Your task to perform on an android device: see sites visited before in the chrome app Image 0: 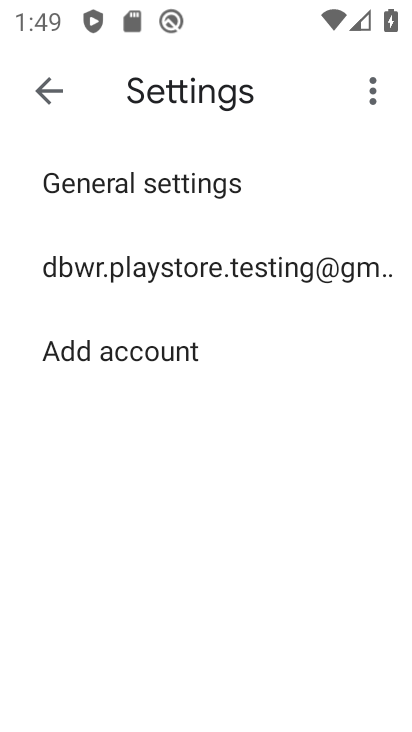
Step 0: press home button
Your task to perform on an android device: see sites visited before in the chrome app Image 1: 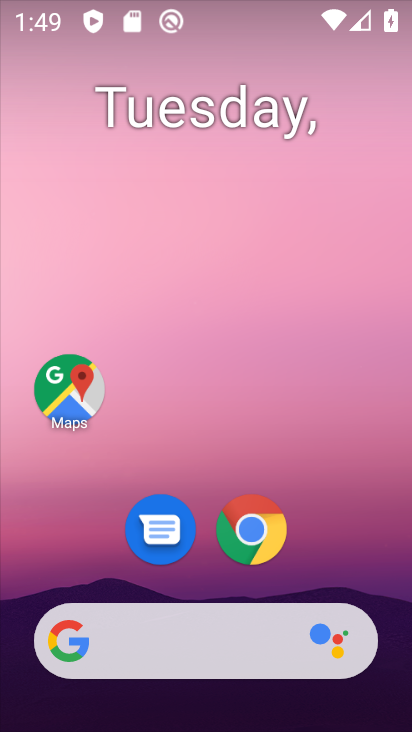
Step 1: click (267, 536)
Your task to perform on an android device: see sites visited before in the chrome app Image 2: 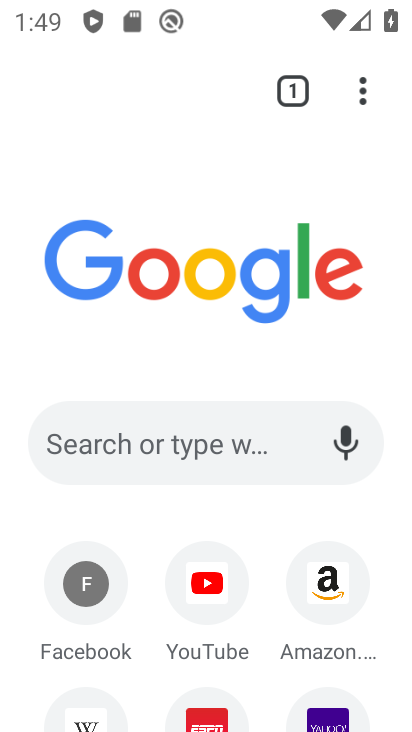
Step 2: click (372, 97)
Your task to perform on an android device: see sites visited before in the chrome app Image 3: 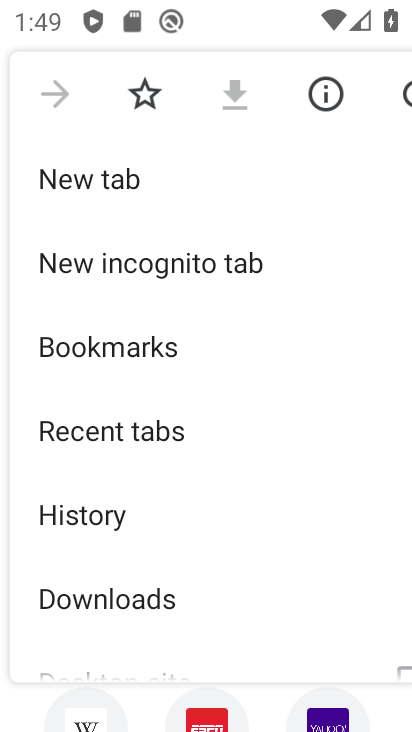
Step 3: drag from (207, 642) to (162, 194)
Your task to perform on an android device: see sites visited before in the chrome app Image 4: 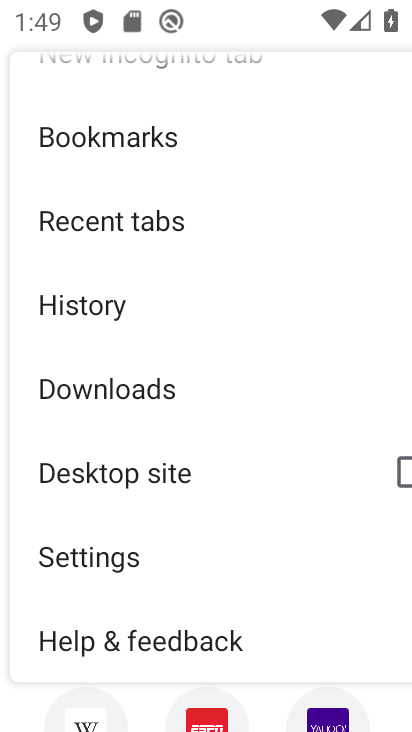
Step 4: click (107, 315)
Your task to perform on an android device: see sites visited before in the chrome app Image 5: 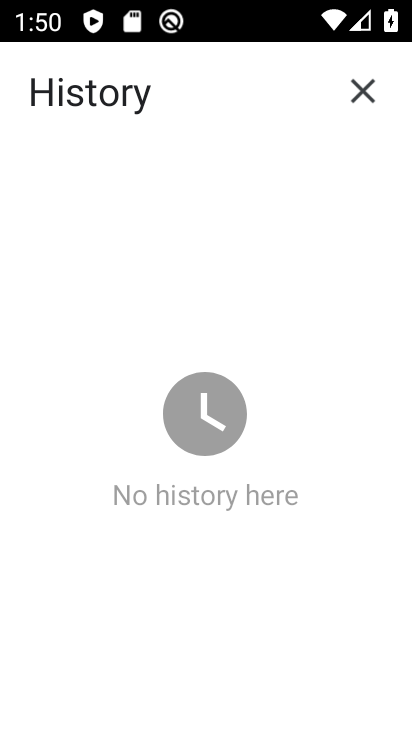
Step 5: task complete